Your task to perform on an android device: Show the shopping cart on amazon.com. Add acer predator to the cart on amazon.com Image 0: 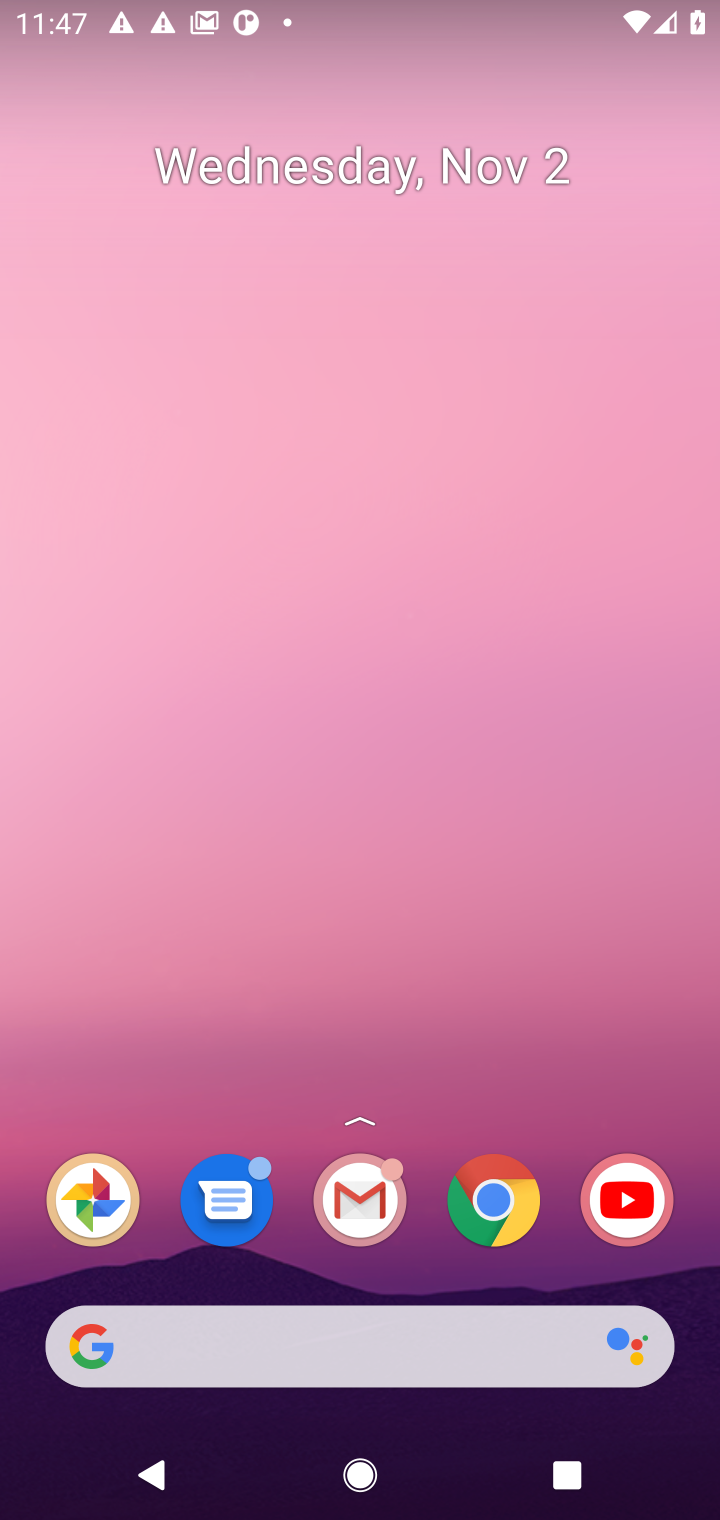
Step 0: click (479, 1188)
Your task to perform on an android device: Show the shopping cart on amazon.com. Add acer predator to the cart on amazon.com Image 1: 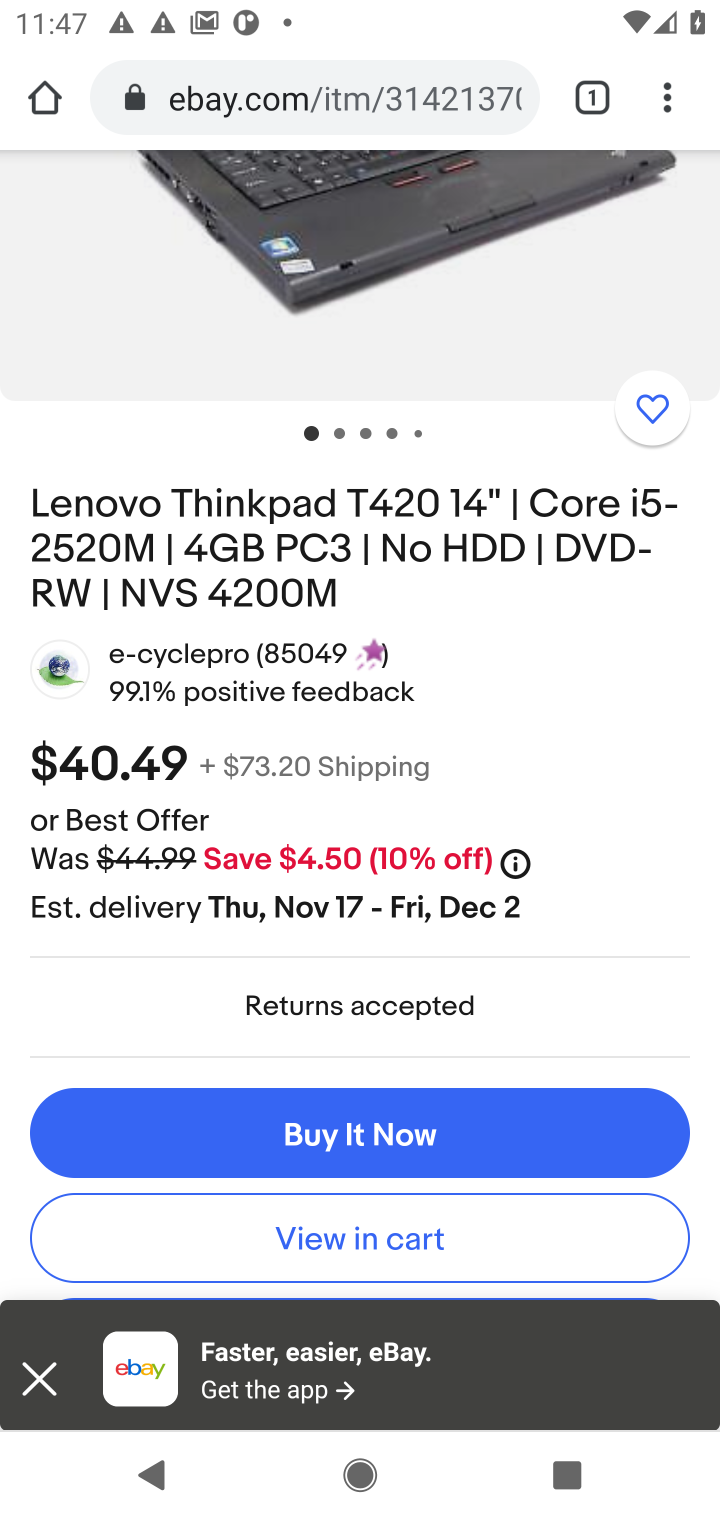
Step 1: click (294, 113)
Your task to perform on an android device: Show the shopping cart on amazon.com. Add acer predator to the cart on amazon.com Image 2: 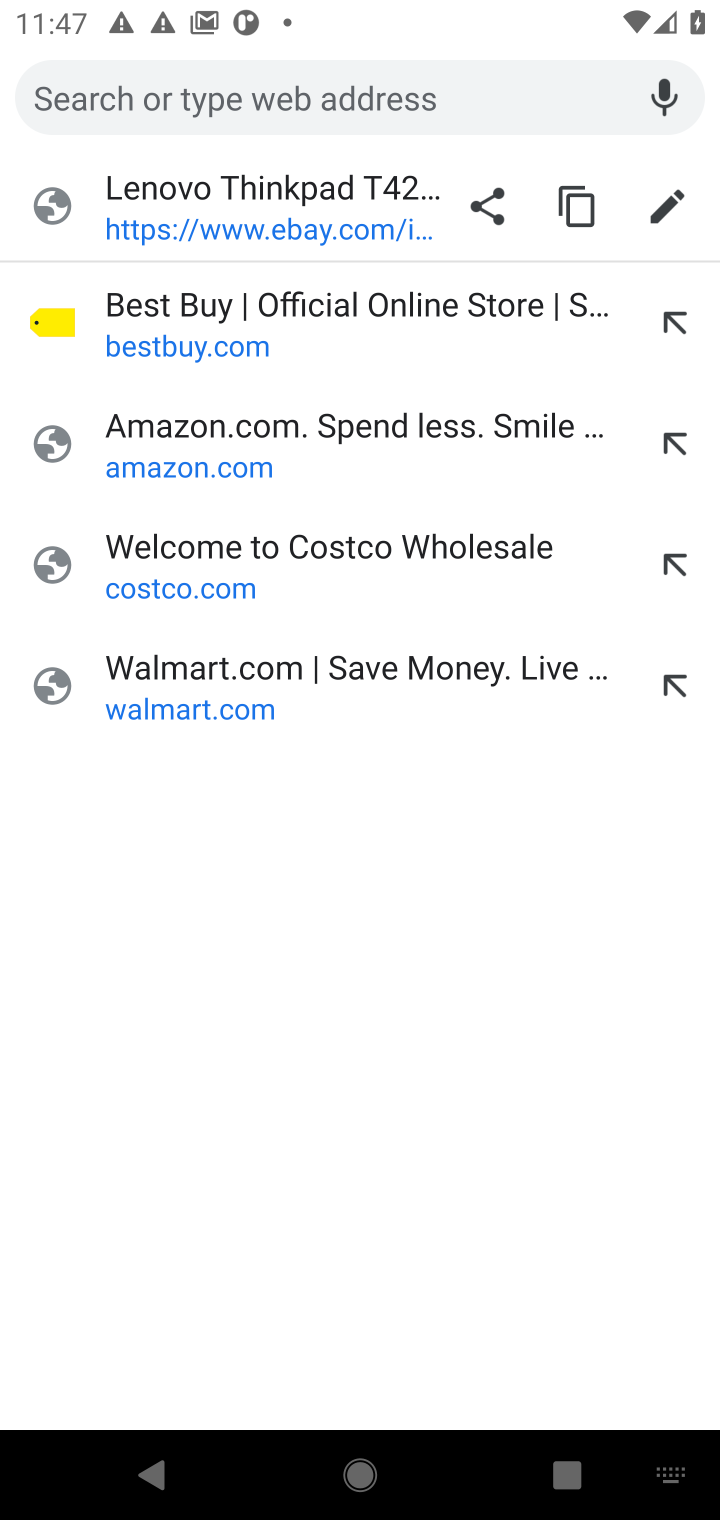
Step 2: click (174, 463)
Your task to perform on an android device: Show the shopping cart on amazon.com. Add acer predator to the cart on amazon.com Image 3: 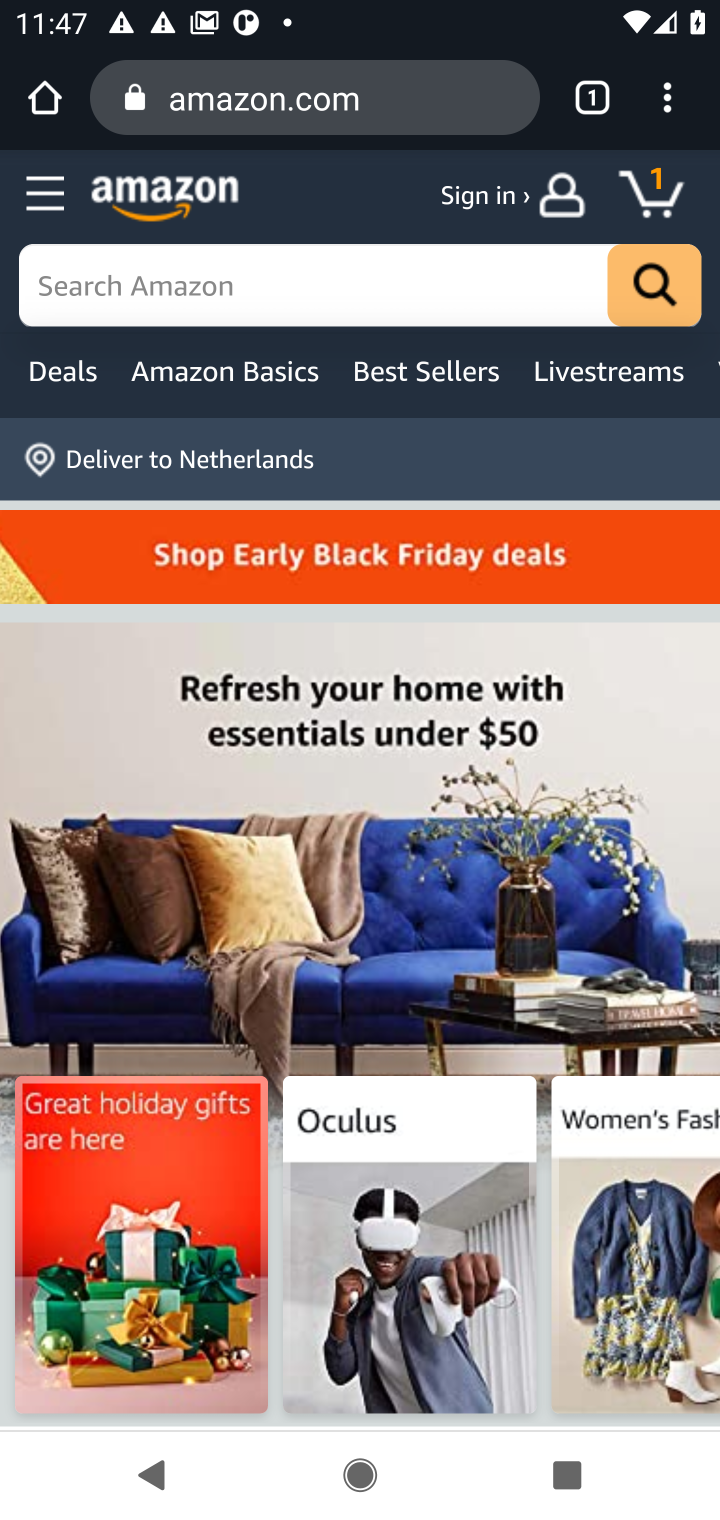
Step 3: click (652, 202)
Your task to perform on an android device: Show the shopping cart on amazon.com. Add acer predator to the cart on amazon.com Image 4: 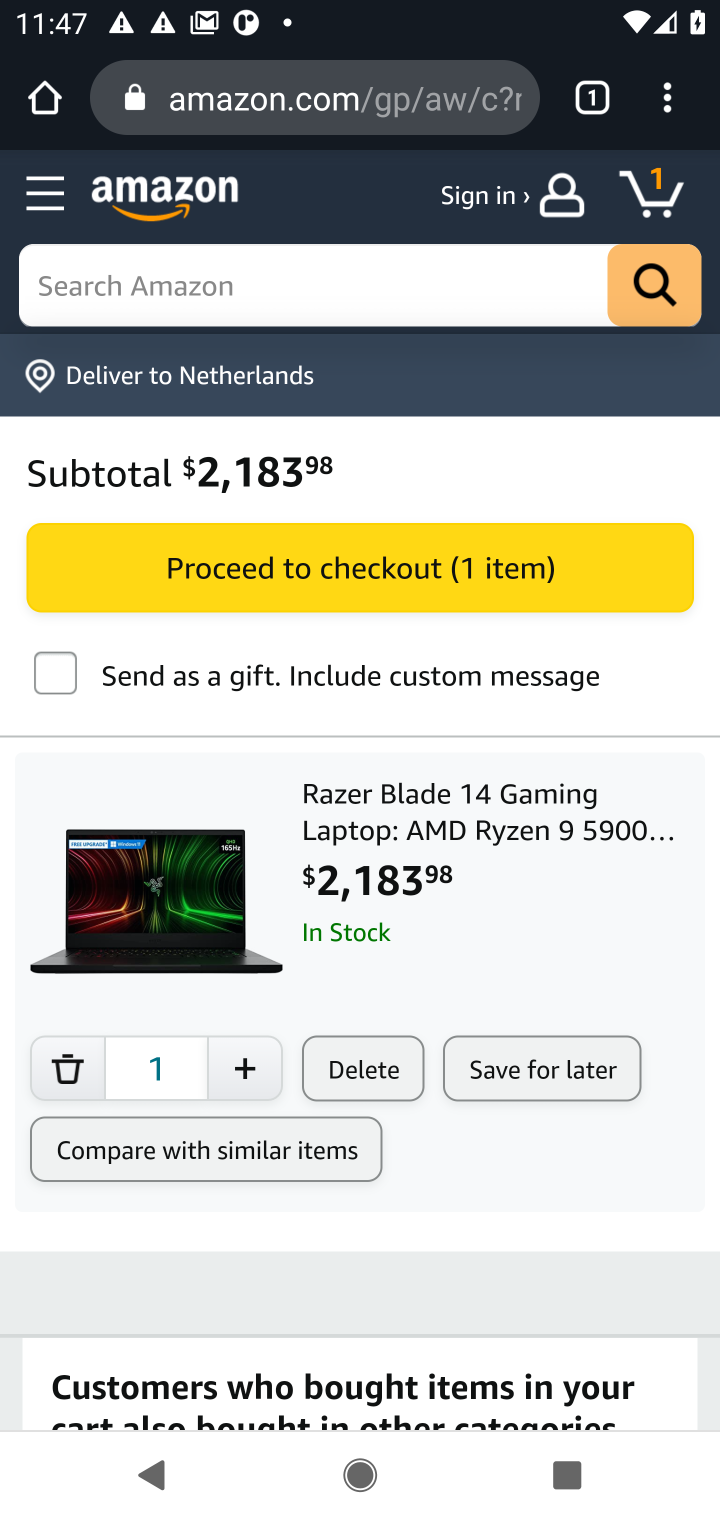
Step 4: click (331, 278)
Your task to perform on an android device: Show the shopping cart on amazon.com. Add acer predator to the cart on amazon.com Image 5: 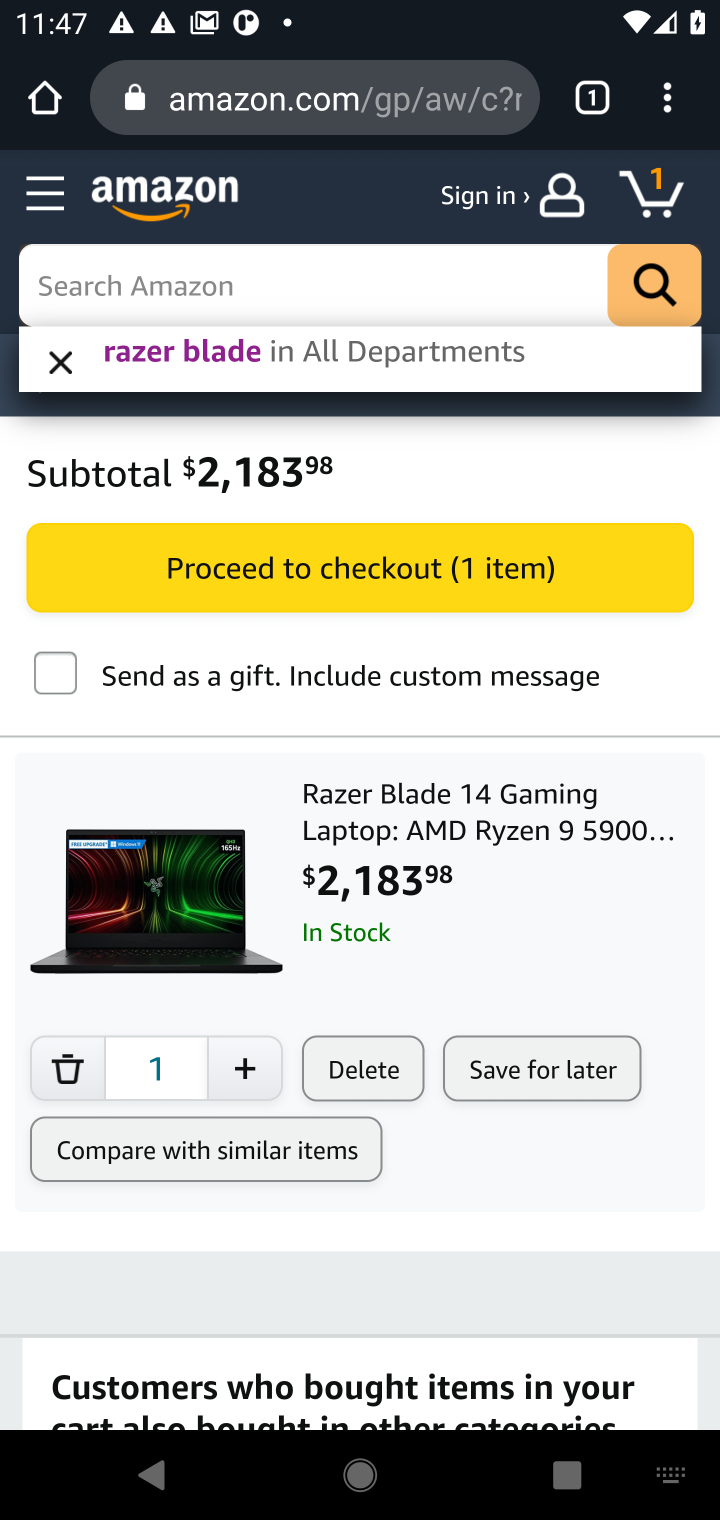
Step 5: type "acer predator"
Your task to perform on an android device: Show the shopping cart on amazon.com. Add acer predator to the cart on amazon.com Image 6: 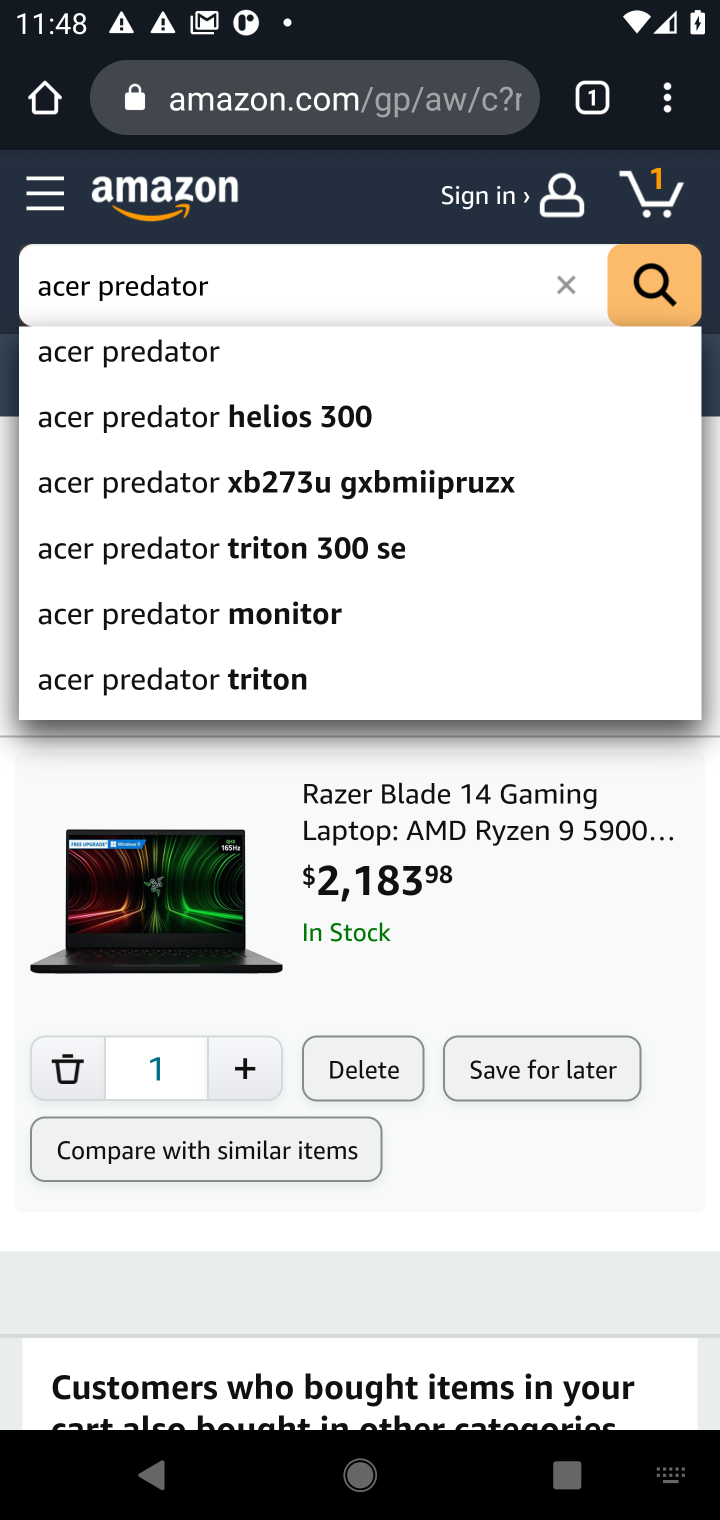
Step 6: click (184, 355)
Your task to perform on an android device: Show the shopping cart on amazon.com. Add acer predator to the cart on amazon.com Image 7: 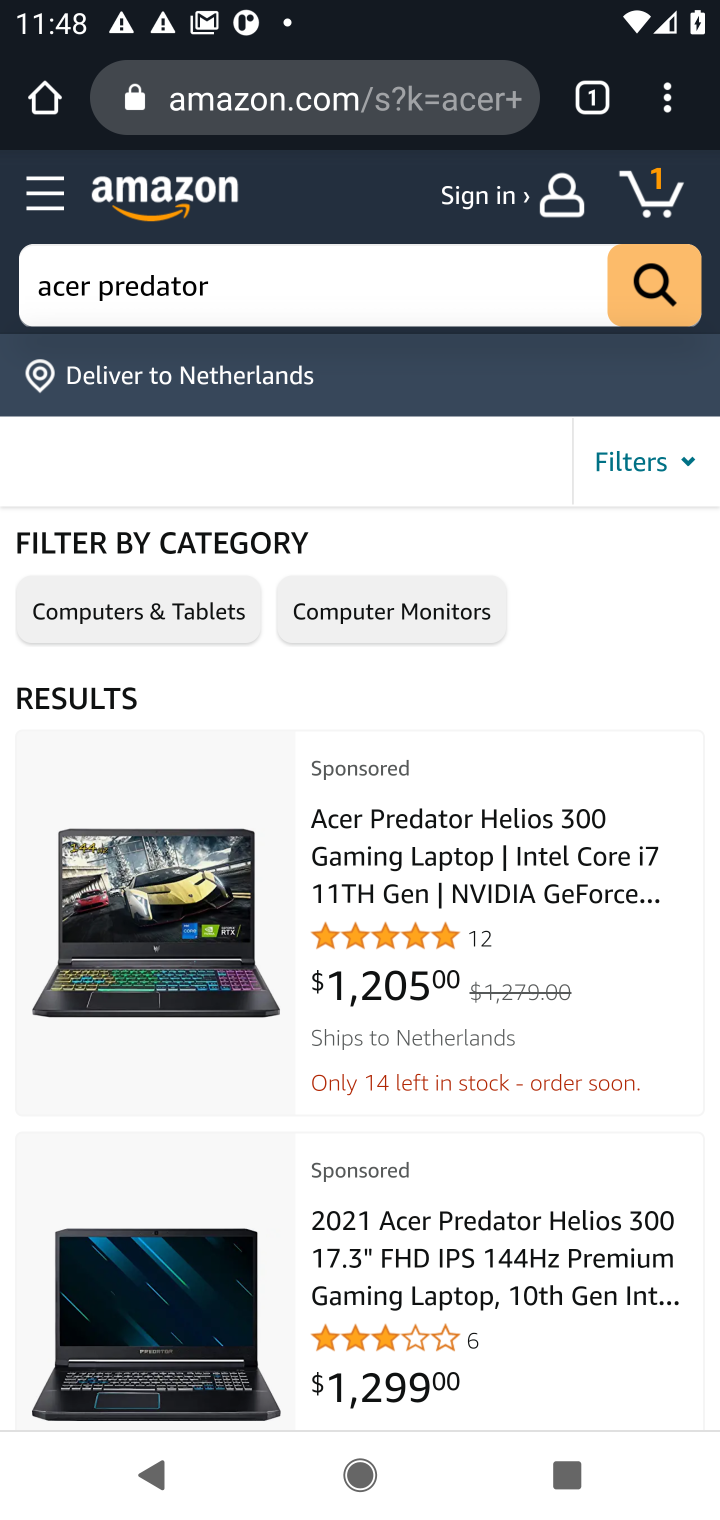
Step 7: click (105, 939)
Your task to perform on an android device: Show the shopping cart on amazon.com. Add acer predator to the cart on amazon.com Image 8: 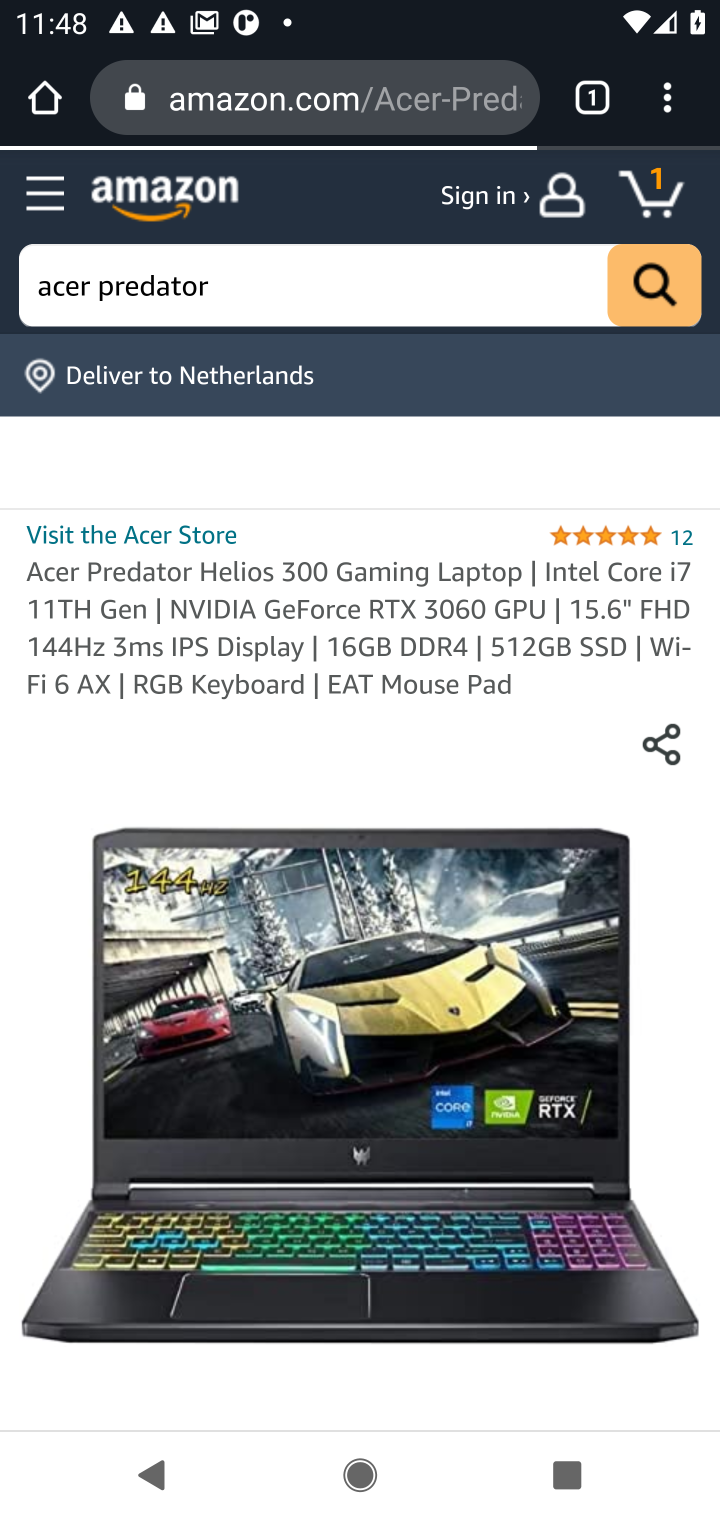
Step 8: drag from (382, 1095) to (338, 657)
Your task to perform on an android device: Show the shopping cart on amazon.com. Add acer predator to the cart on amazon.com Image 9: 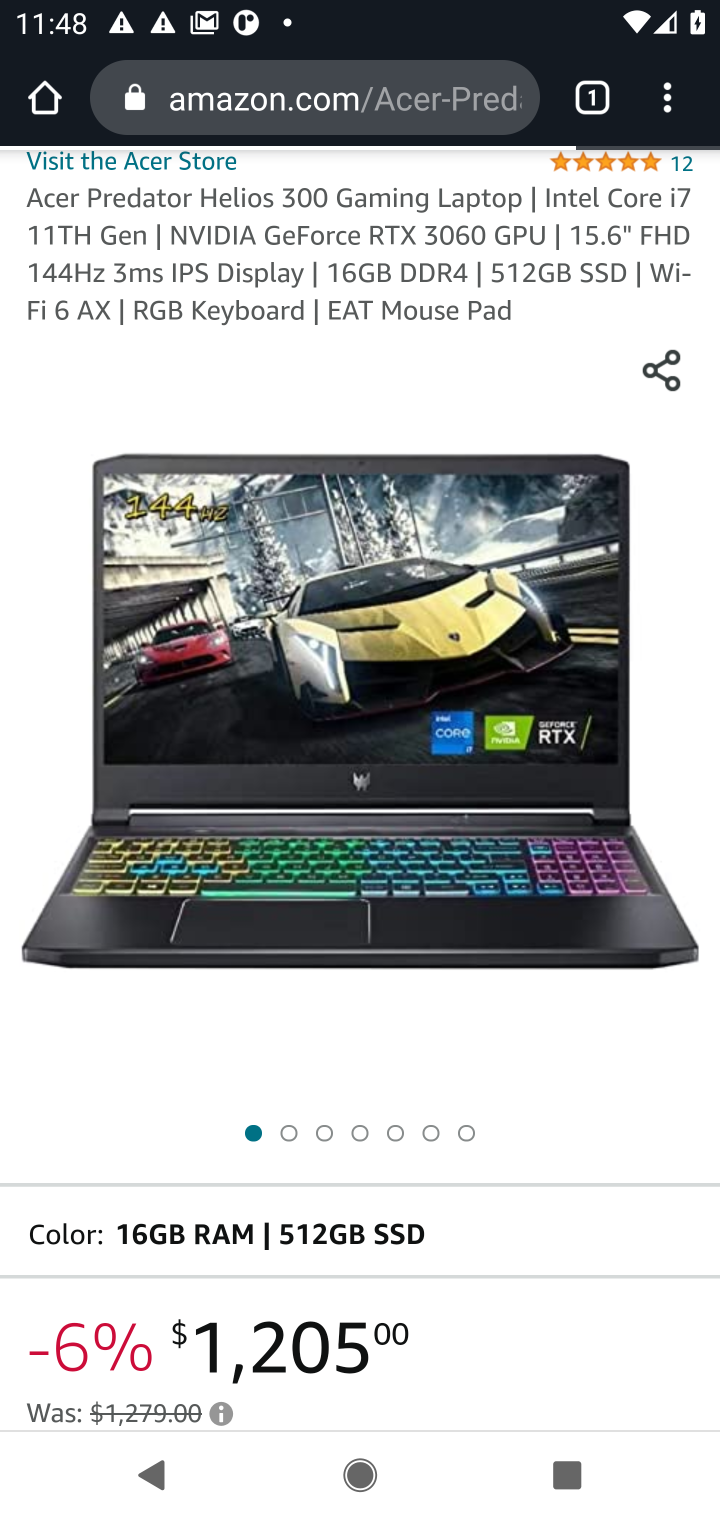
Step 9: drag from (498, 1250) to (476, 834)
Your task to perform on an android device: Show the shopping cart on amazon.com. Add acer predator to the cart on amazon.com Image 10: 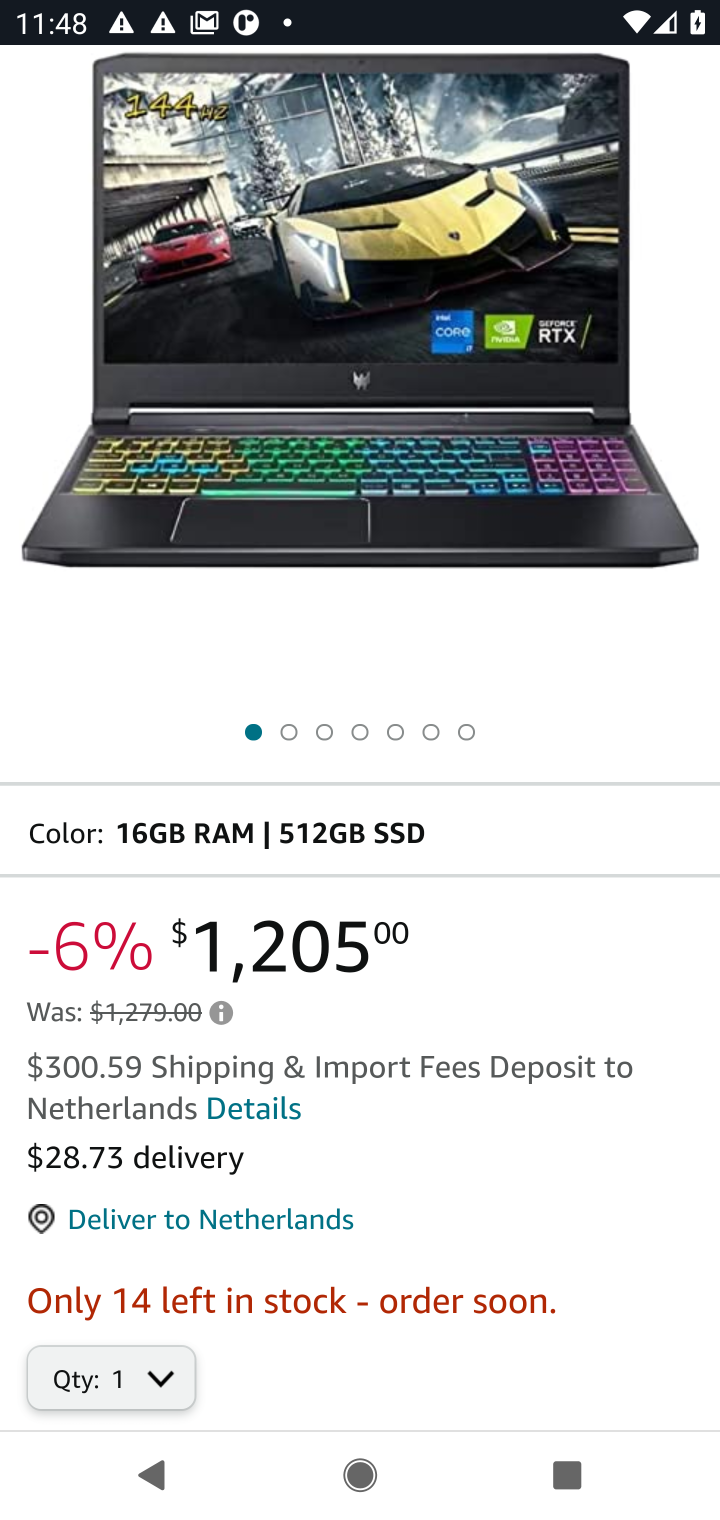
Step 10: drag from (559, 1187) to (524, 837)
Your task to perform on an android device: Show the shopping cart on amazon.com. Add acer predator to the cart on amazon.com Image 11: 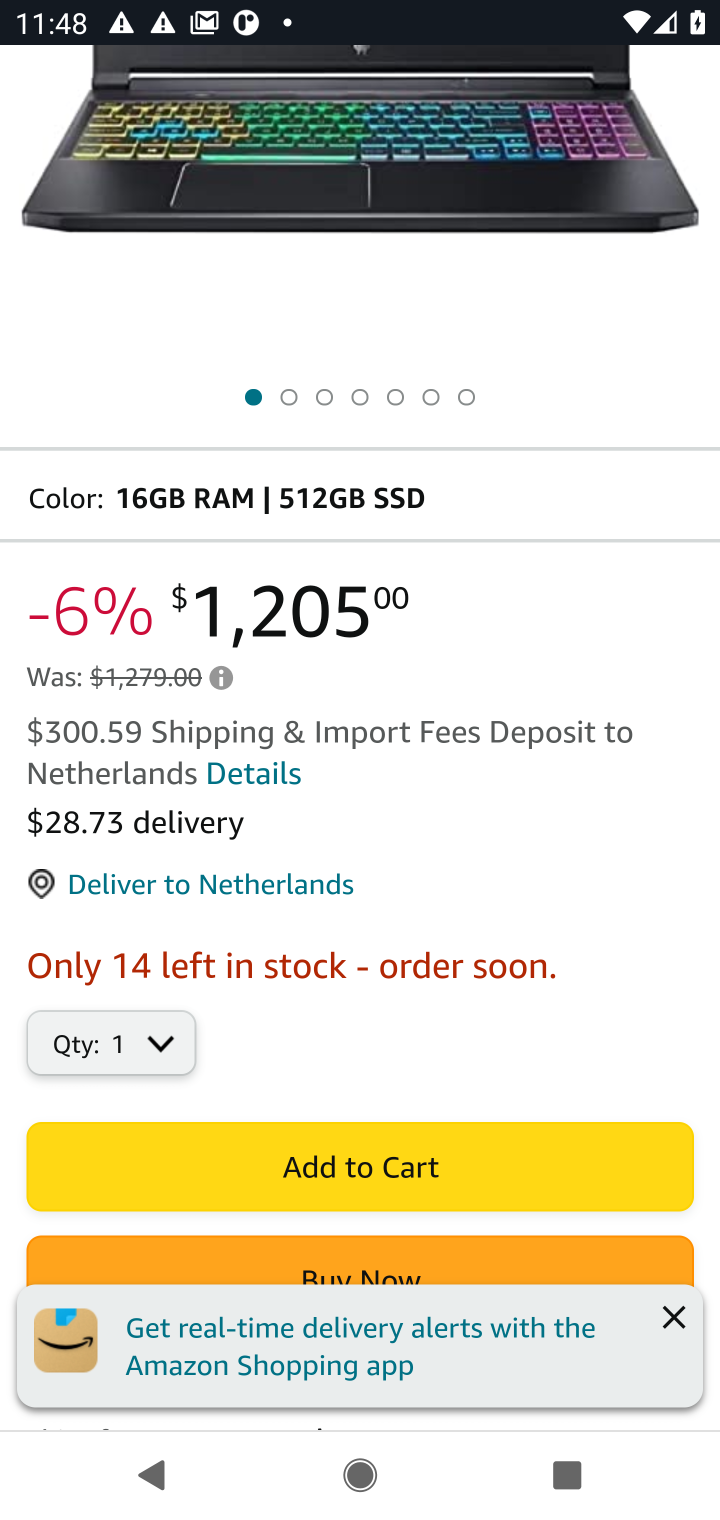
Step 11: click (457, 1150)
Your task to perform on an android device: Show the shopping cart on amazon.com. Add acer predator to the cart on amazon.com Image 12: 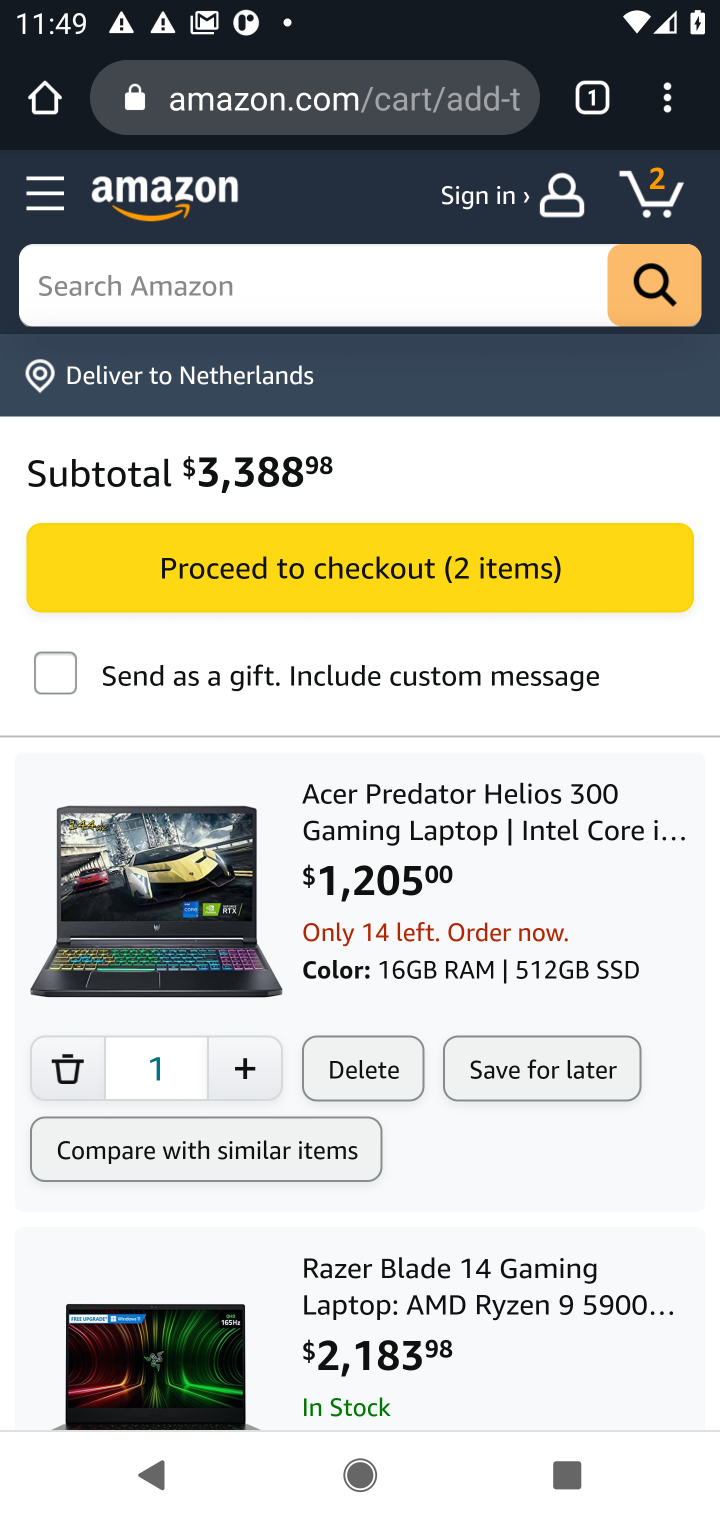
Step 12: task complete